Your task to perform on an android device: add a contact in the contacts app Image 0: 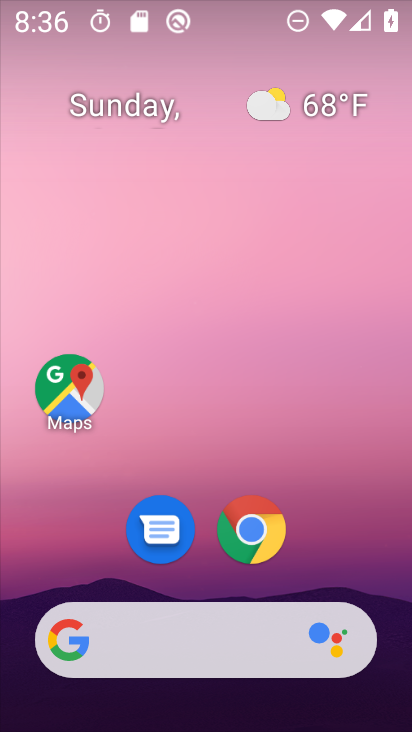
Step 0: click (326, 38)
Your task to perform on an android device: add a contact in the contacts app Image 1: 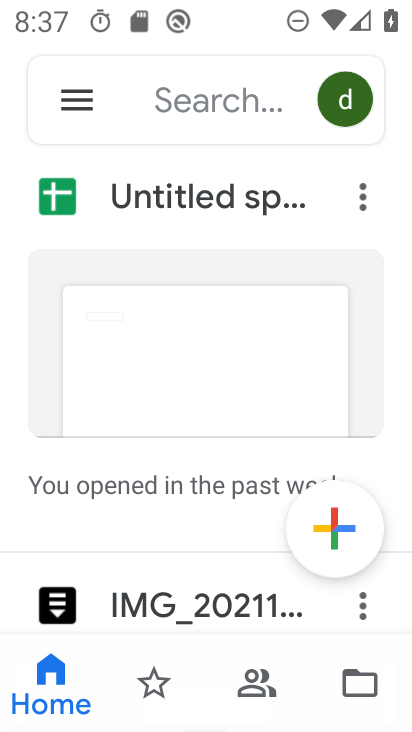
Step 1: press home button
Your task to perform on an android device: add a contact in the contacts app Image 2: 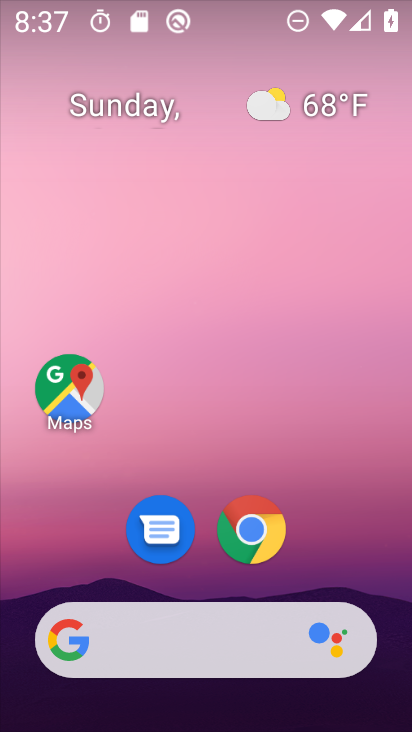
Step 2: drag from (204, 565) to (227, 4)
Your task to perform on an android device: add a contact in the contacts app Image 3: 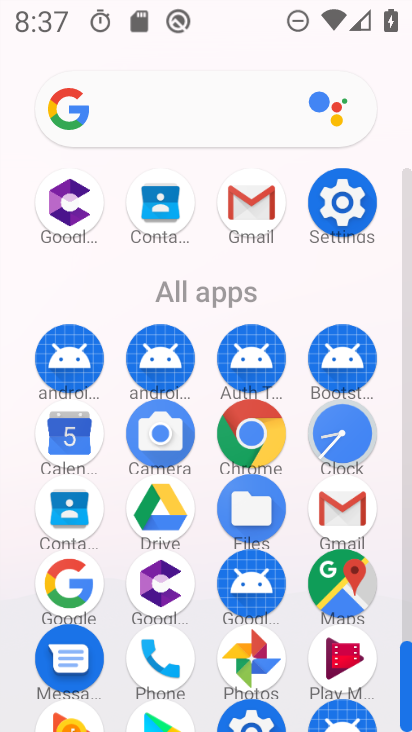
Step 3: click (69, 502)
Your task to perform on an android device: add a contact in the contacts app Image 4: 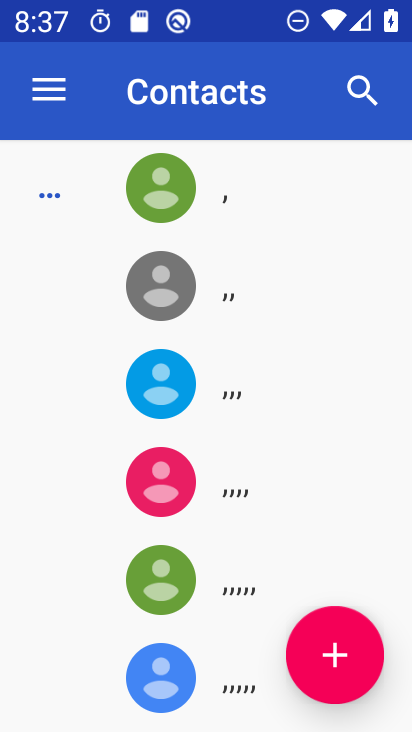
Step 4: click (333, 646)
Your task to perform on an android device: add a contact in the contacts app Image 5: 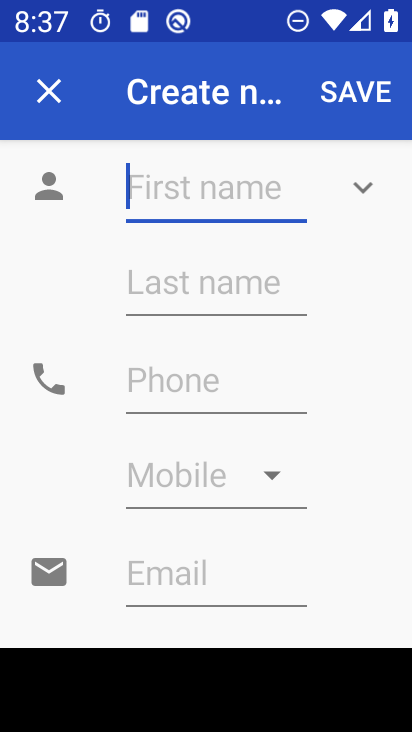
Step 5: type "jftrrdtygthv"
Your task to perform on an android device: add a contact in the contacts app Image 6: 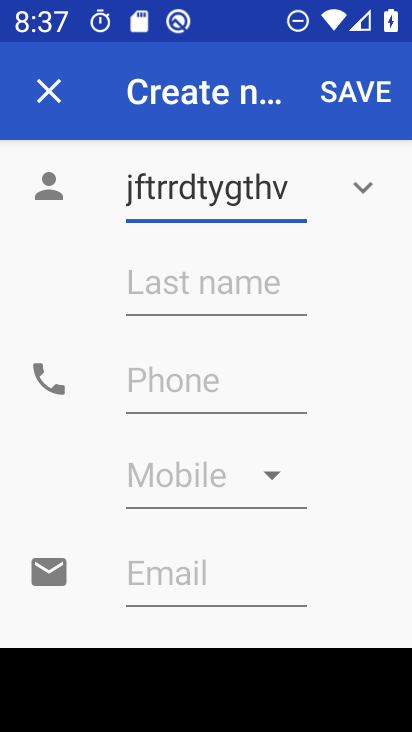
Step 6: click (350, 95)
Your task to perform on an android device: add a contact in the contacts app Image 7: 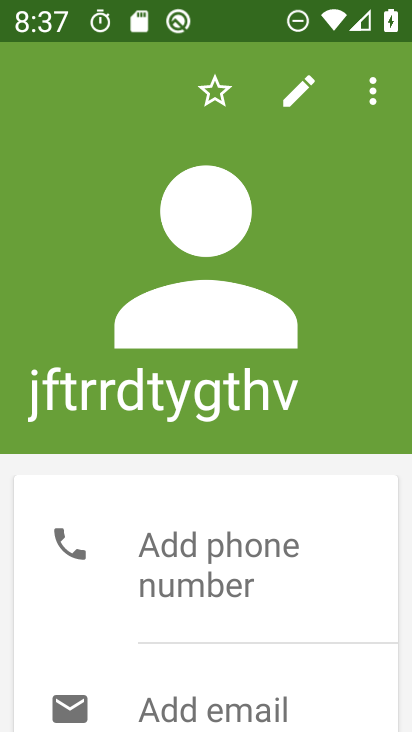
Step 7: press home button
Your task to perform on an android device: add a contact in the contacts app Image 8: 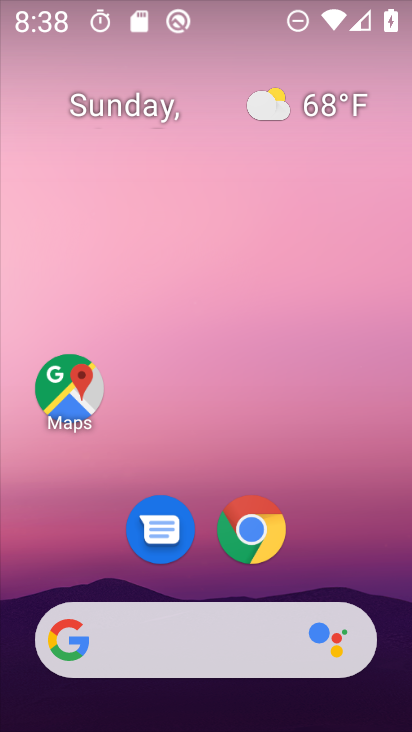
Step 8: press home button
Your task to perform on an android device: add a contact in the contacts app Image 9: 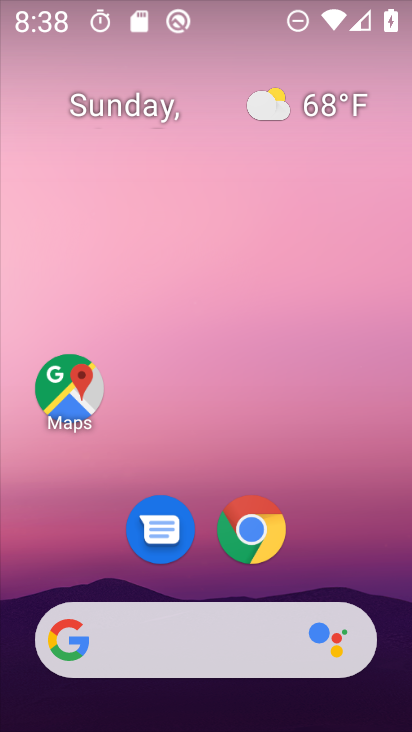
Step 9: drag from (207, 576) to (266, 25)
Your task to perform on an android device: add a contact in the contacts app Image 10: 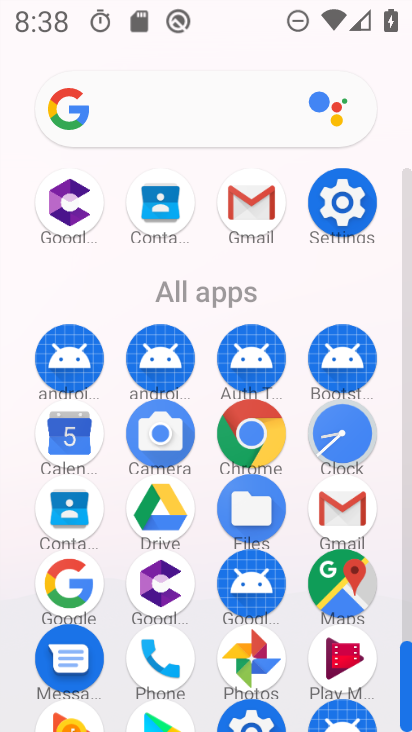
Step 10: click (157, 197)
Your task to perform on an android device: add a contact in the contacts app Image 11: 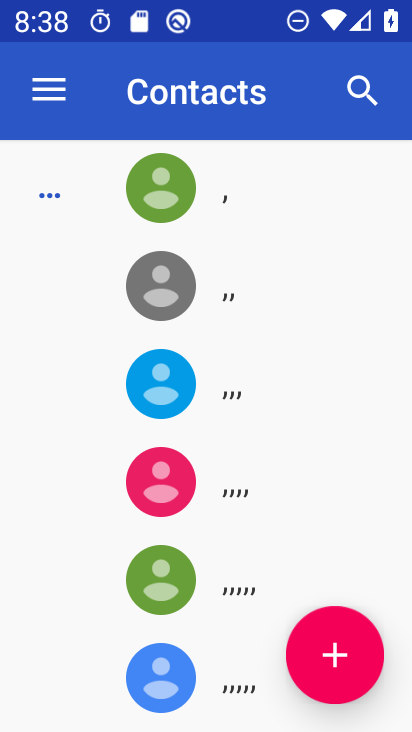
Step 11: click (347, 655)
Your task to perform on an android device: add a contact in the contacts app Image 12: 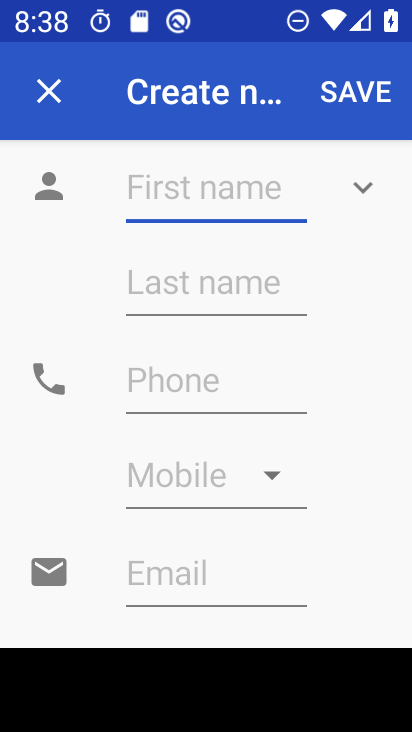
Step 12: type "hfcthfguh"
Your task to perform on an android device: add a contact in the contacts app Image 13: 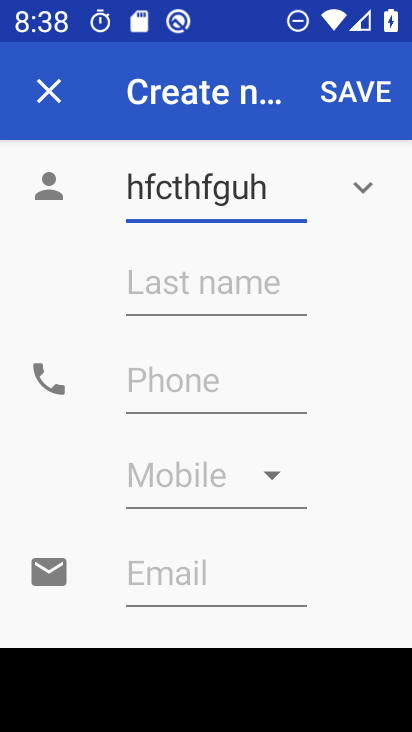
Step 13: click (359, 99)
Your task to perform on an android device: add a contact in the contacts app Image 14: 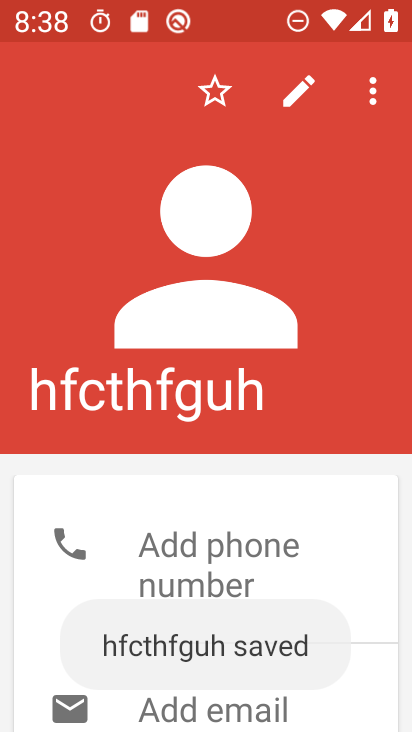
Step 14: task complete